Your task to perform on an android device: open chrome and create a bookmark for the current page Image 0: 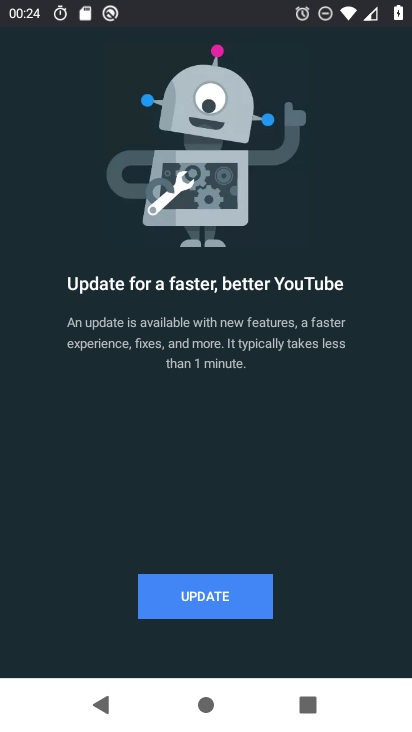
Step 0: press home button
Your task to perform on an android device: open chrome and create a bookmark for the current page Image 1: 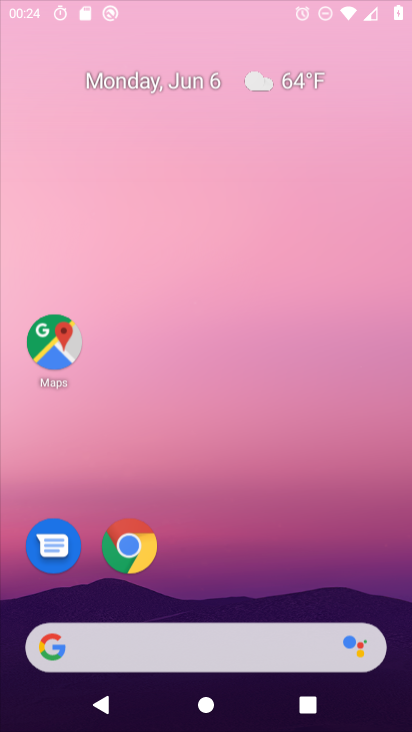
Step 1: drag from (204, 646) to (257, 178)
Your task to perform on an android device: open chrome and create a bookmark for the current page Image 2: 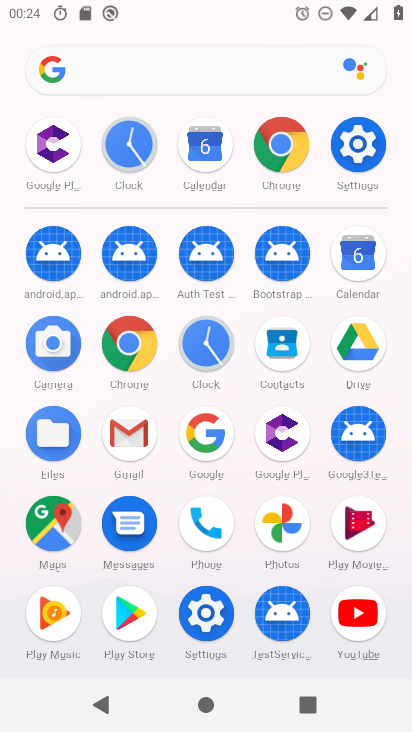
Step 2: click (278, 150)
Your task to perform on an android device: open chrome and create a bookmark for the current page Image 3: 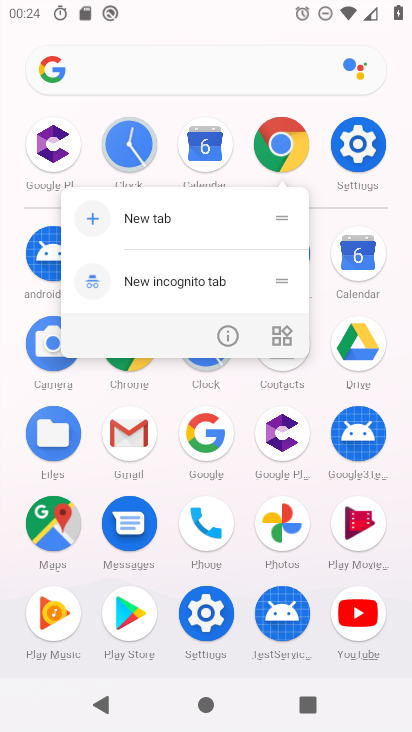
Step 3: click (217, 334)
Your task to perform on an android device: open chrome and create a bookmark for the current page Image 4: 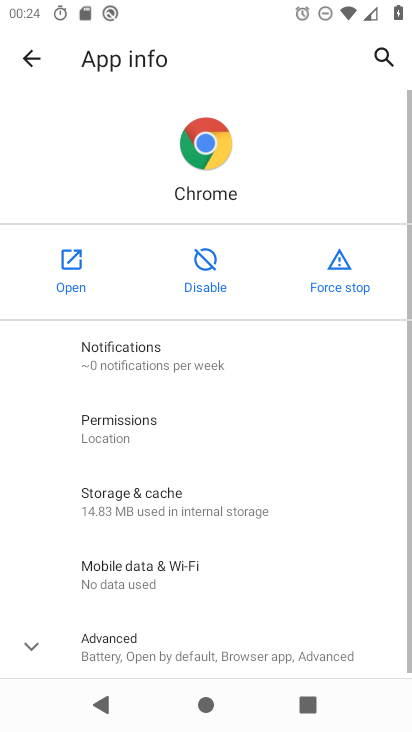
Step 4: click (65, 257)
Your task to perform on an android device: open chrome and create a bookmark for the current page Image 5: 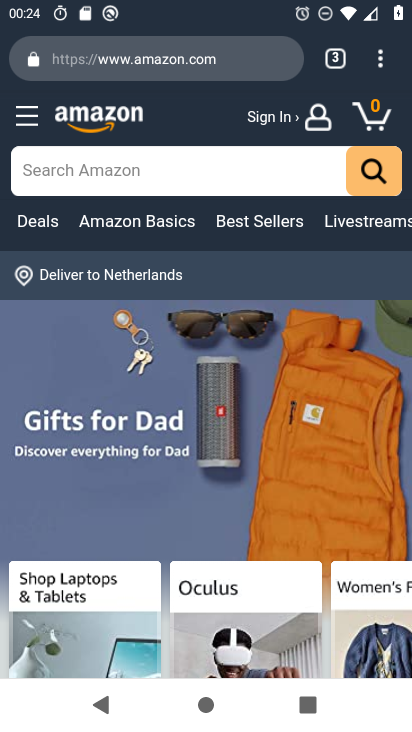
Step 5: task complete